Your task to perform on an android device: find which apps use the phone's location Image 0: 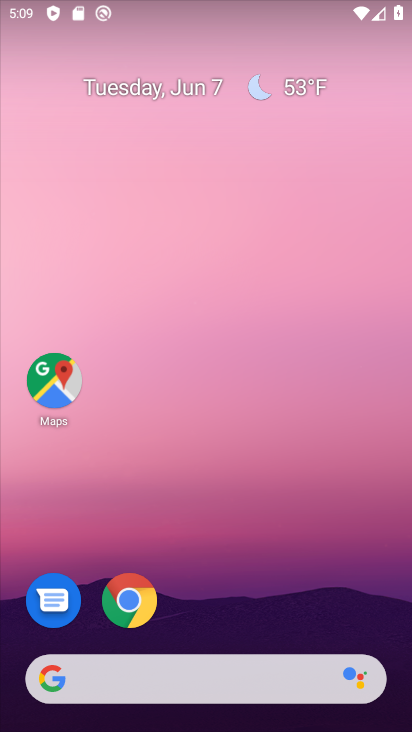
Step 0: drag from (226, 560) to (237, 67)
Your task to perform on an android device: find which apps use the phone's location Image 1: 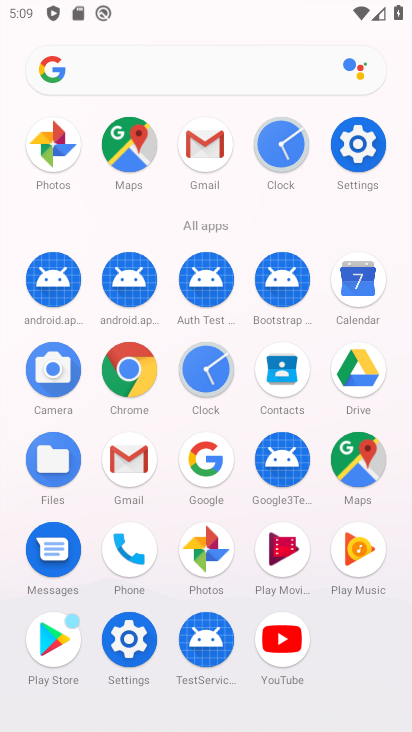
Step 1: click (365, 134)
Your task to perform on an android device: find which apps use the phone's location Image 2: 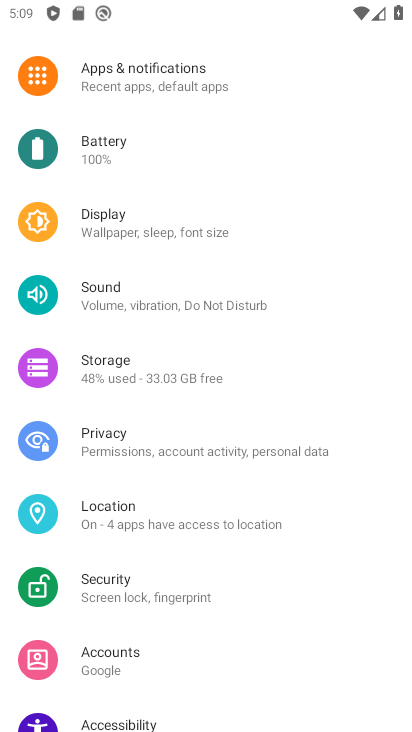
Step 2: click (109, 517)
Your task to perform on an android device: find which apps use the phone's location Image 3: 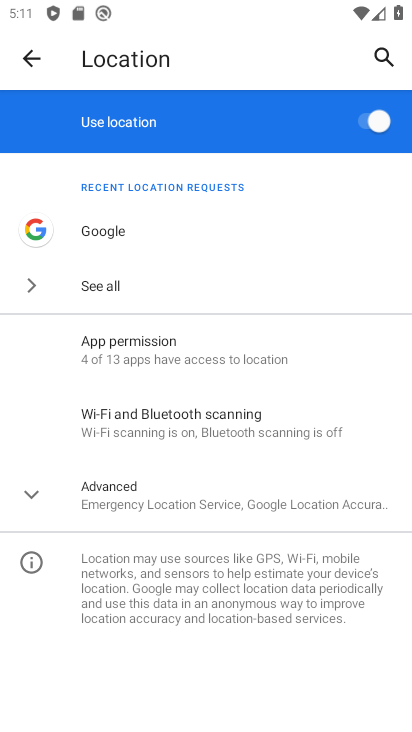
Step 3: click (122, 350)
Your task to perform on an android device: find which apps use the phone's location Image 4: 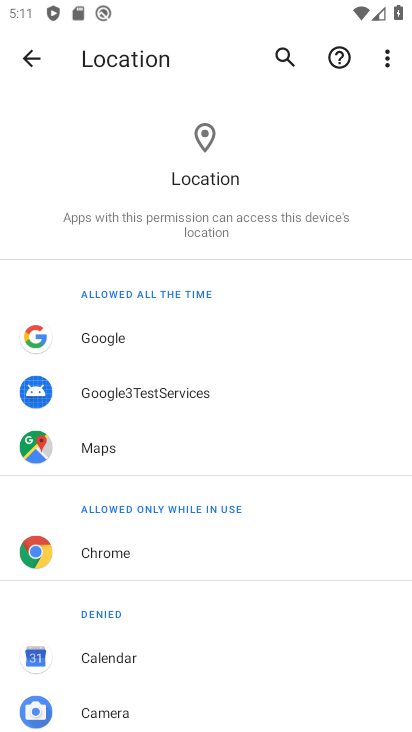
Step 4: task complete